Your task to perform on an android device: turn on improve location accuracy Image 0: 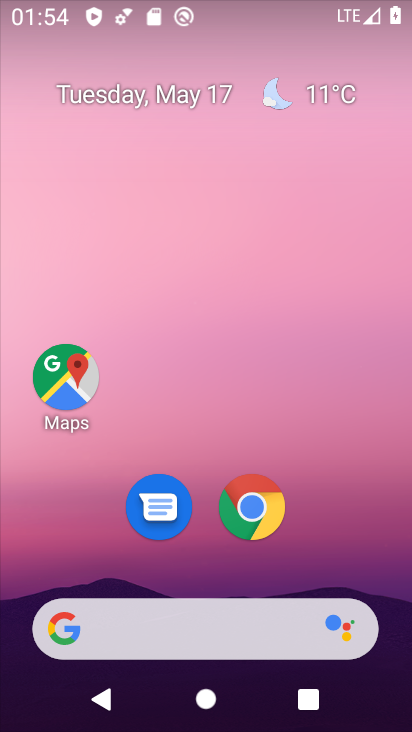
Step 0: drag from (201, 587) to (224, 71)
Your task to perform on an android device: turn on improve location accuracy Image 1: 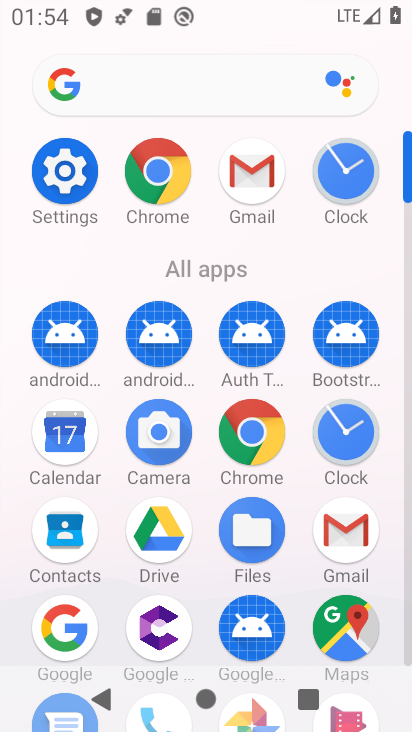
Step 1: click (65, 167)
Your task to perform on an android device: turn on improve location accuracy Image 2: 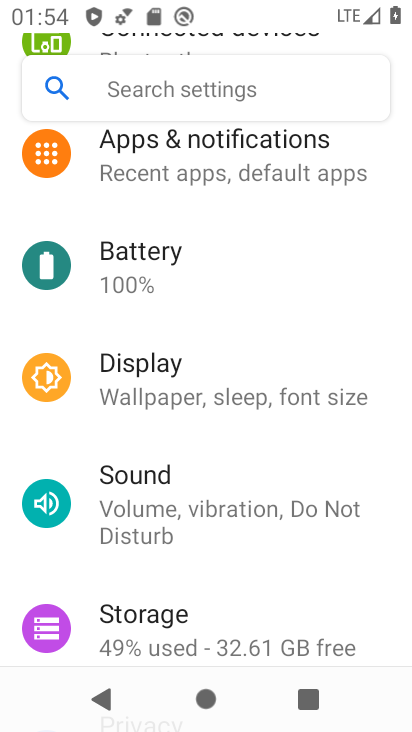
Step 2: drag from (113, 520) to (146, 215)
Your task to perform on an android device: turn on improve location accuracy Image 3: 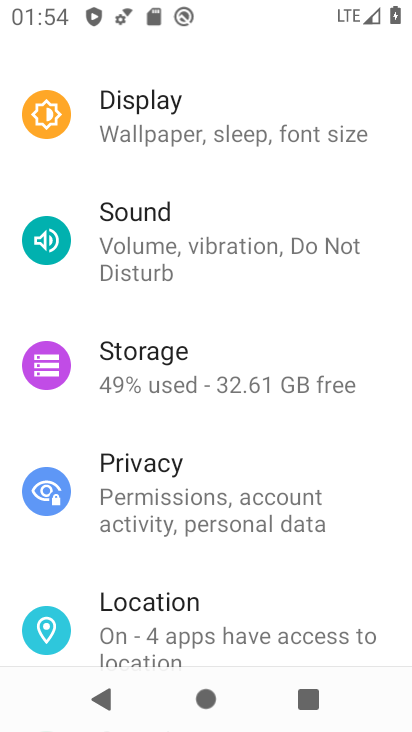
Step 3: click (117, 646)
Your task to perform on an android device: turn on improve location accuracy Image 4: 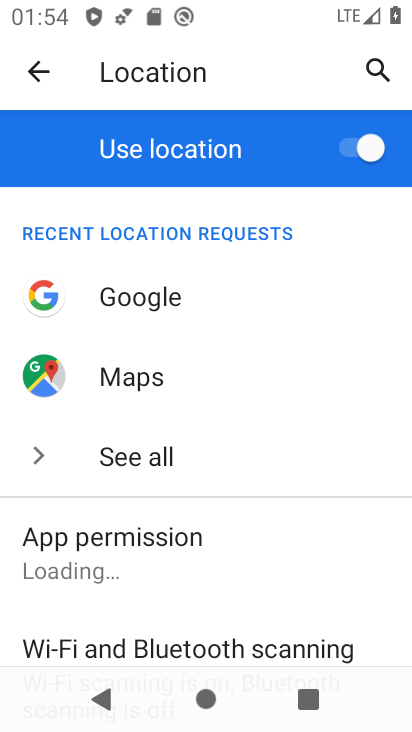
Step 4: drag from (138, 553) to (173, 51)
Your task to perform on an android device: turn on improve location accuracy Image 5: 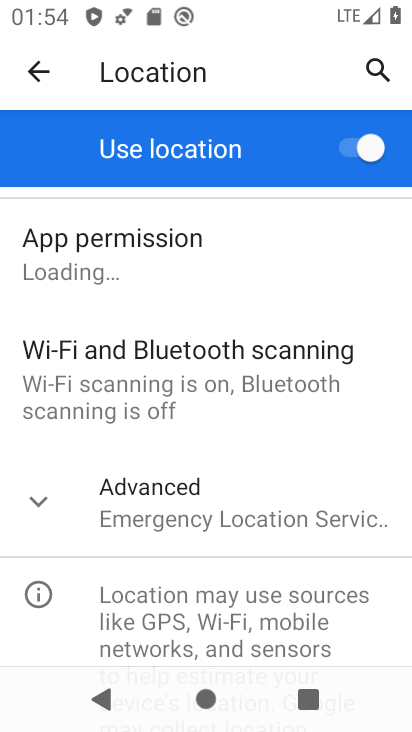
Step 5: click (194, 496)
Your task to perform on an android device: turn on improve location accuracy Image 6: 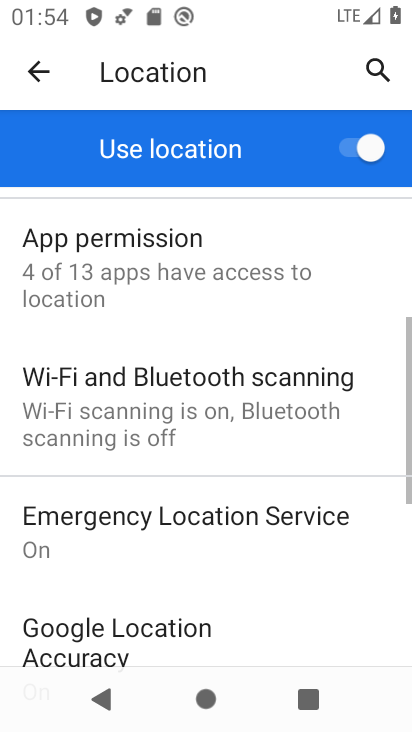
Step 6: task complete